Your task to perform on an android device: Open privacy settings Image 0: 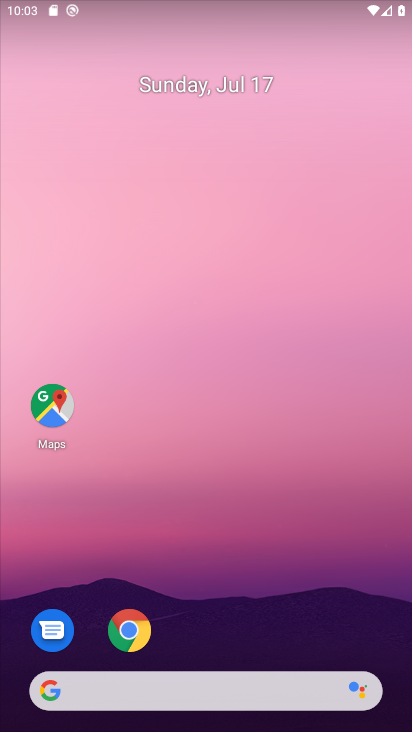
Step 0: drag from (277, 641) to (303, 25)
Your task to perform on an android device: Open privacy settings Image 1: 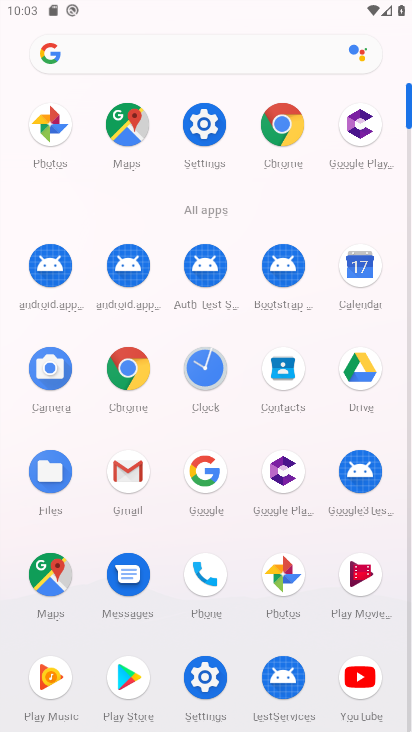
Step 1: click (215, 124)
Your task to perform on an android device: Open privacy settings Image 2: 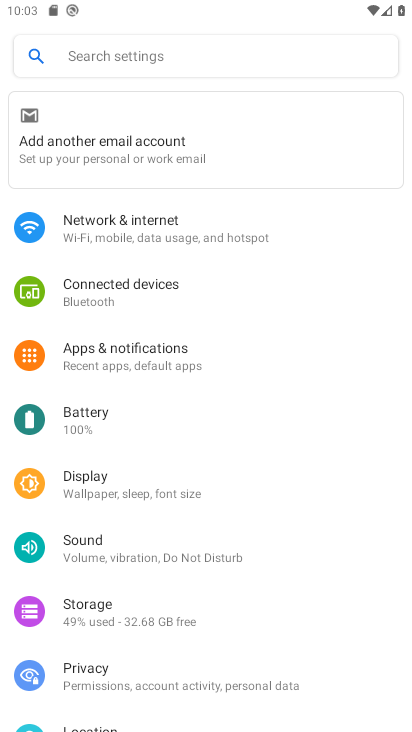
Step 2: click (185, 673)
Your task to perform on an android device: Open privacy settings Image 3: 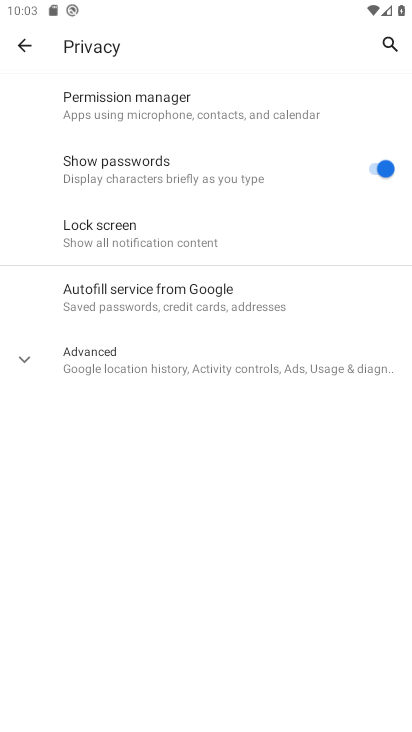
Step 3: task complete